Your task to perform on an android device: Go to accessibility settings Image 0: 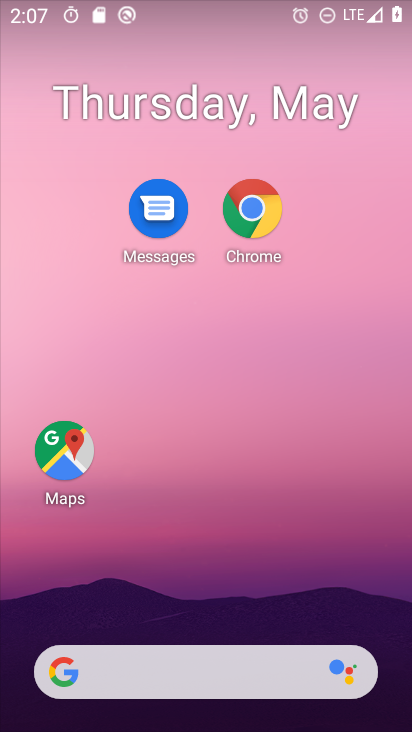
Step 0: drag from (282, 364) to (246, 11)
Your task to perform on an android device: Go to accessibility settings Image 1: 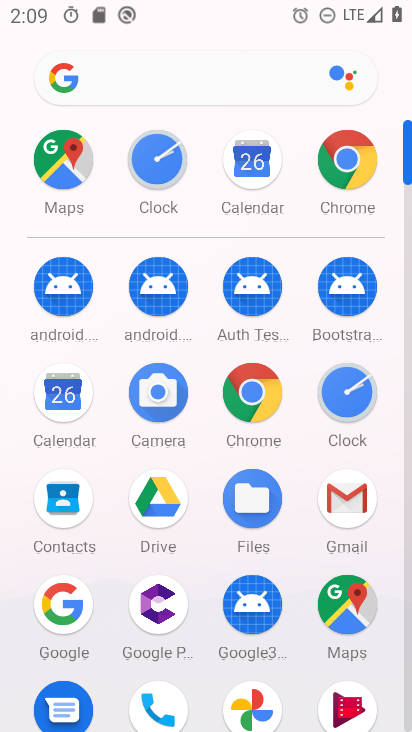
Step 1: drag from (208, 673) to (189, 273)
Your task to perform on an android device: Go to accessibility settings Image 2: 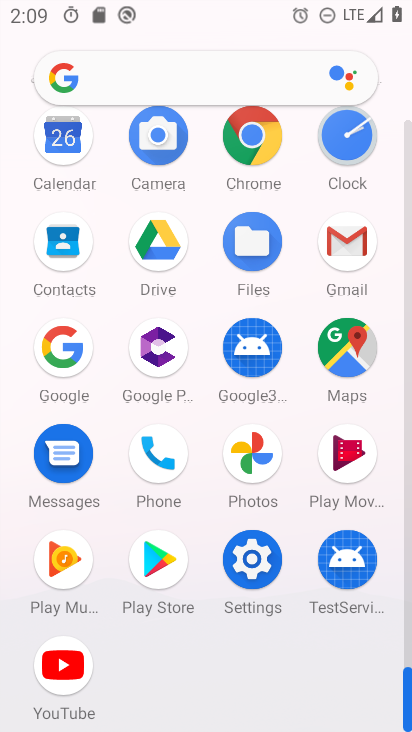
Step 2: click (256, 560)
Your task to perform on an android device: Go to accessibility settings Image 3: 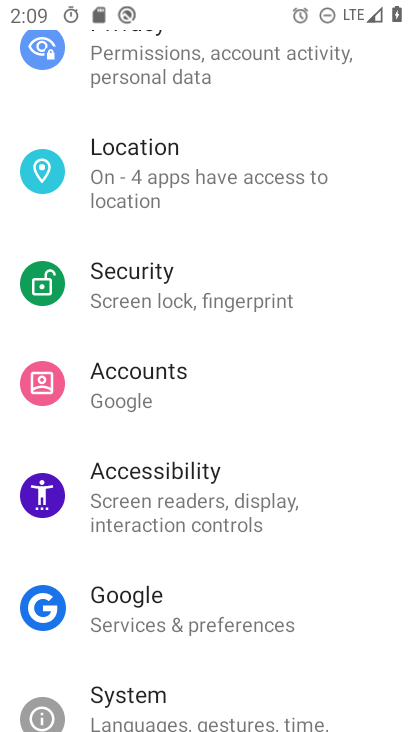
Step 3: click (158, 515)
Your task to perform on an android device: Go to accessibility settings Image 4: 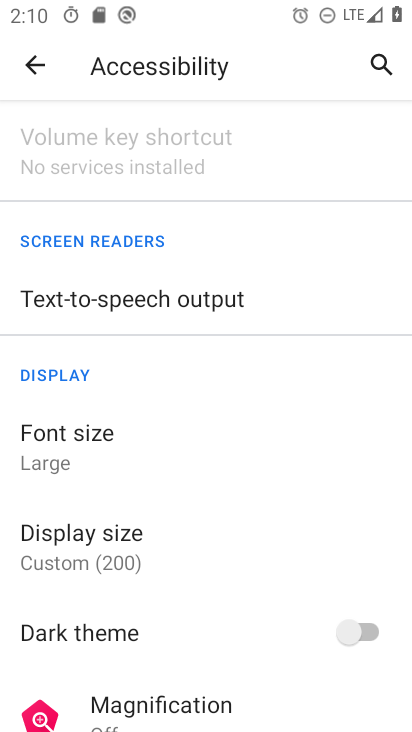
Step 4: task complete